Your task to perform on an android device: Show me the alarms in the clock app Image 0: 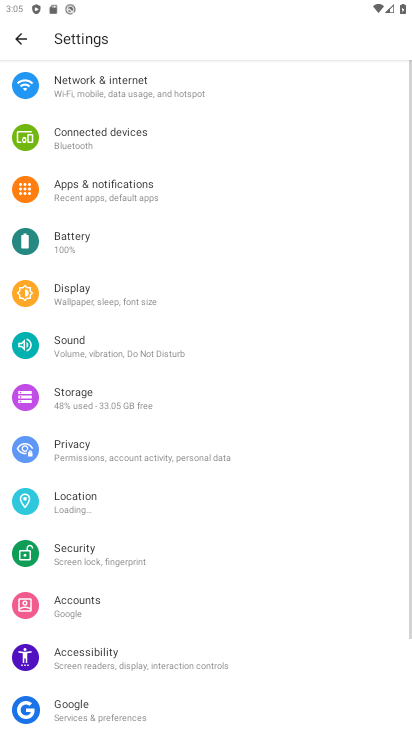
Step 0: press home button
Your task to perform on an android device: Show me the alarms in the clock app Image 1: 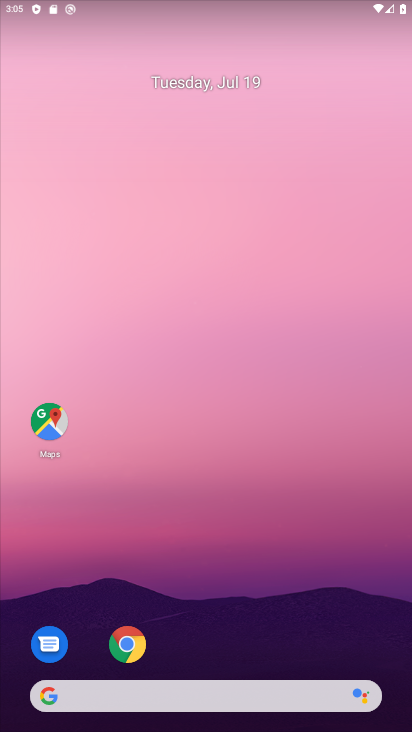
Step 1: drag from (189, 604) to (216, 86)
Your task to perform on an android device: Show me the alarms in the clock app Image 2: 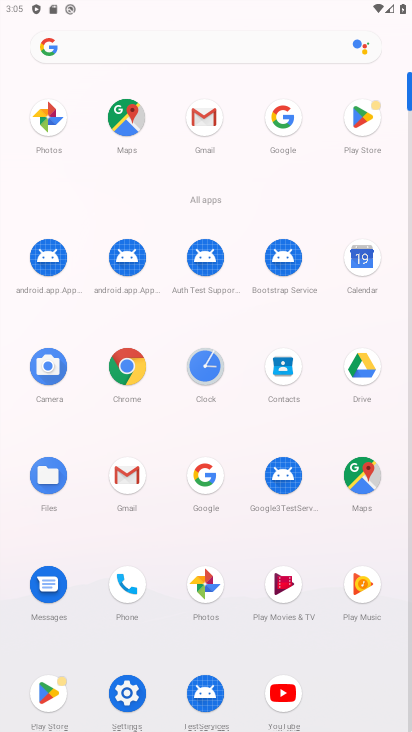
Step 2: click (204, 365)
Your task to perform on an android device: Show me the alarms in the clock app Image 3: 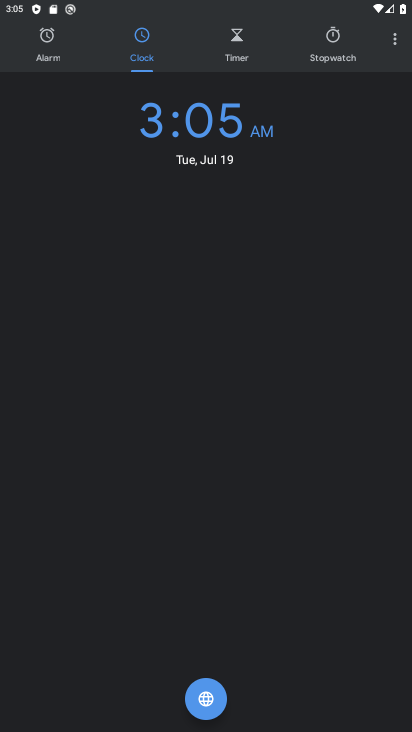
Step 3: click (47, 54)
Your task to perform on an android device: Show me the alarms in the clock app Image 4: 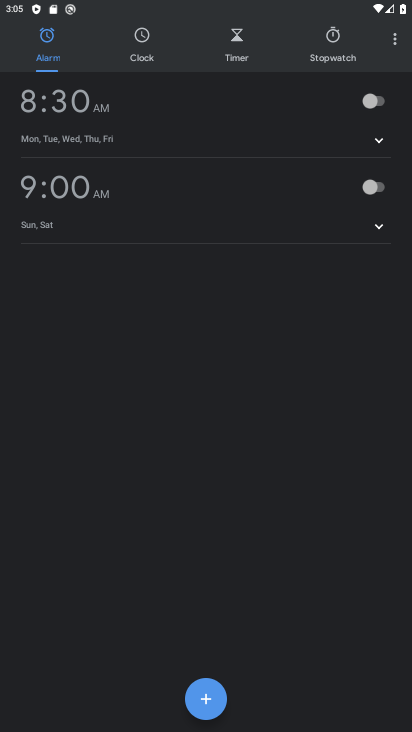
Step 4: task complete